Your task to perform on an android device: When is my next appointment? Image 0: 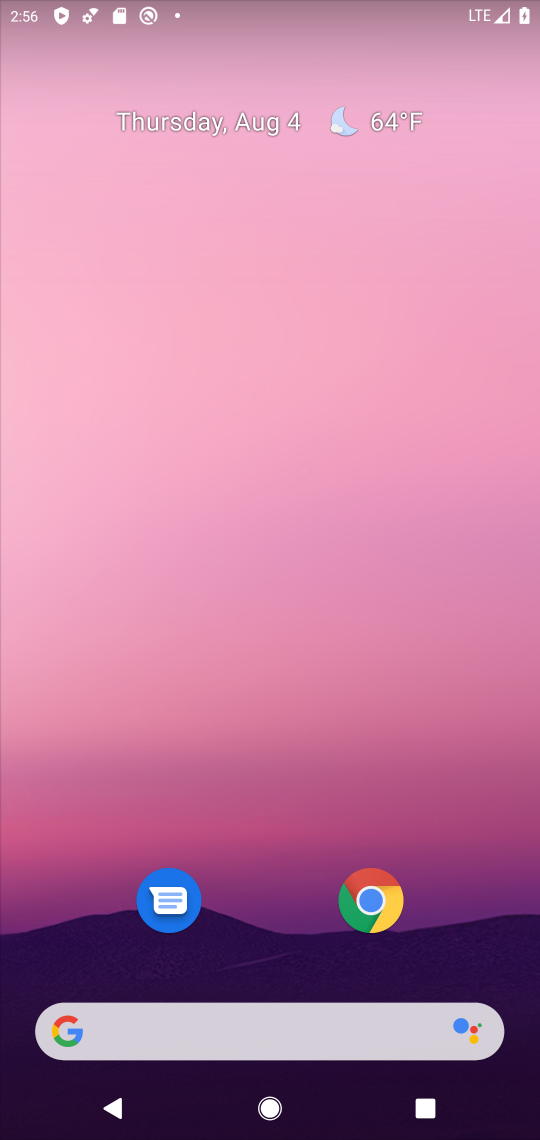
Step 0: drag from (512, 940) to (398, 10)
Your task to perform on an android device: When is my next appointment? Image 1: 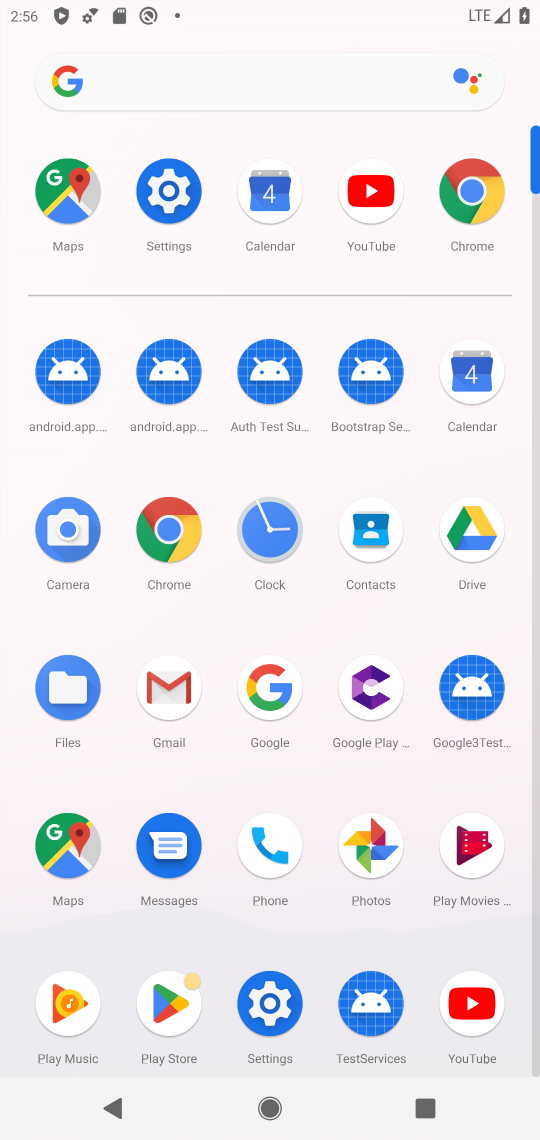
Step 1: click (479, 374)
Your task to perform on an android device: When is my next appointment? Image 2: 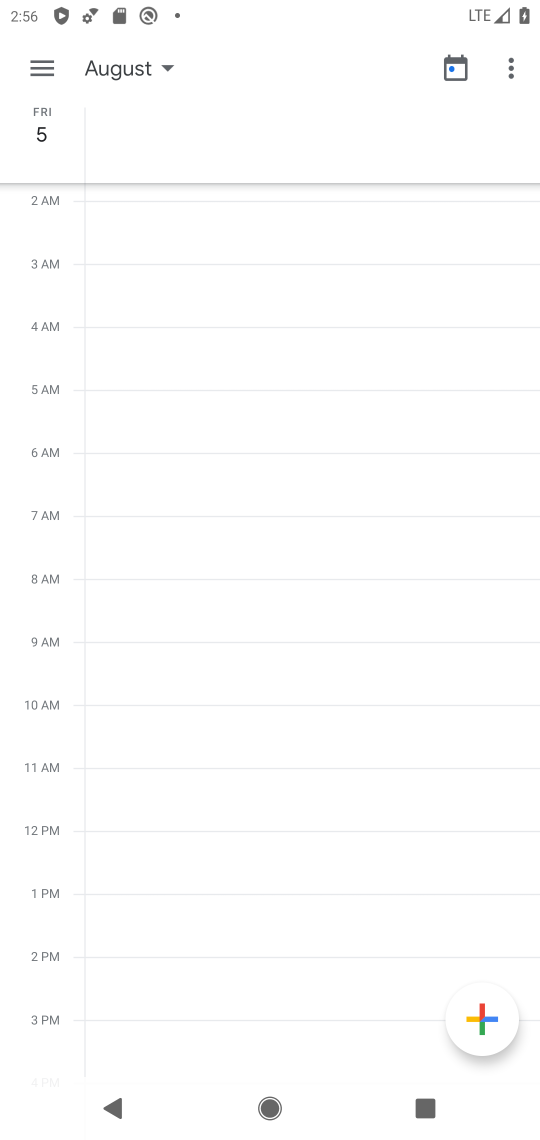
Step 2: click (49, 68)
Your task to perform on an android device: When is my next appointment? Image 3: 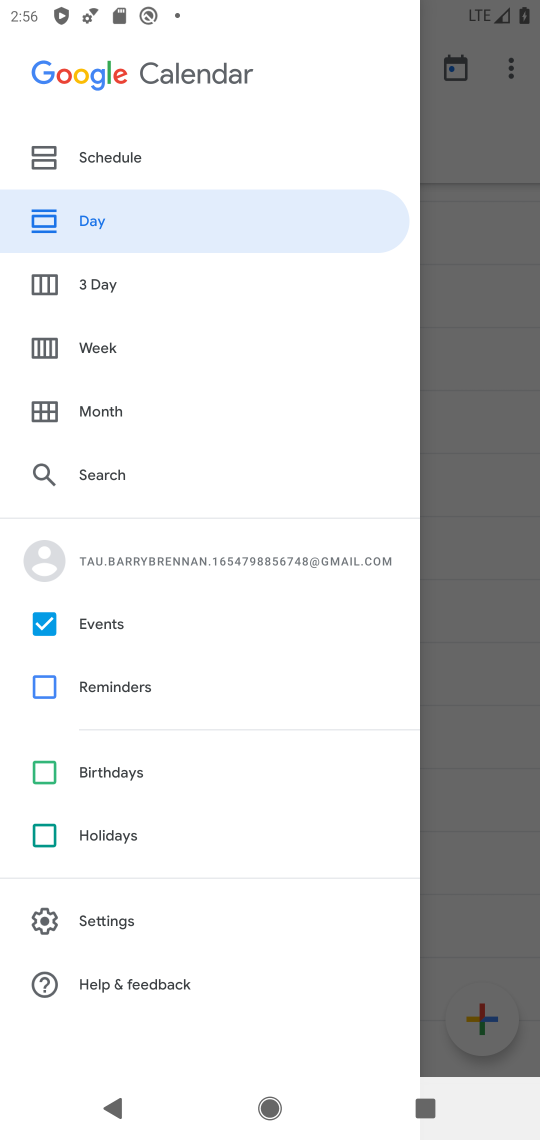
Step 3: click (119, 167)
Your task to perform on an android device: When is my next appointment? Image 4: 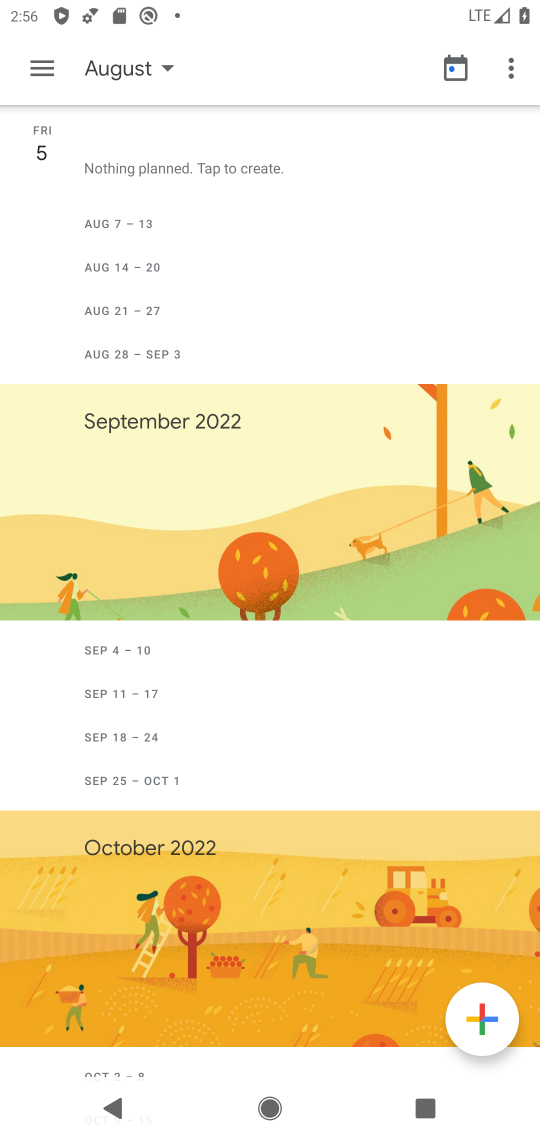
Step 4: task complete